Your task to perform on an android device: Open Reddit.com Image 0: 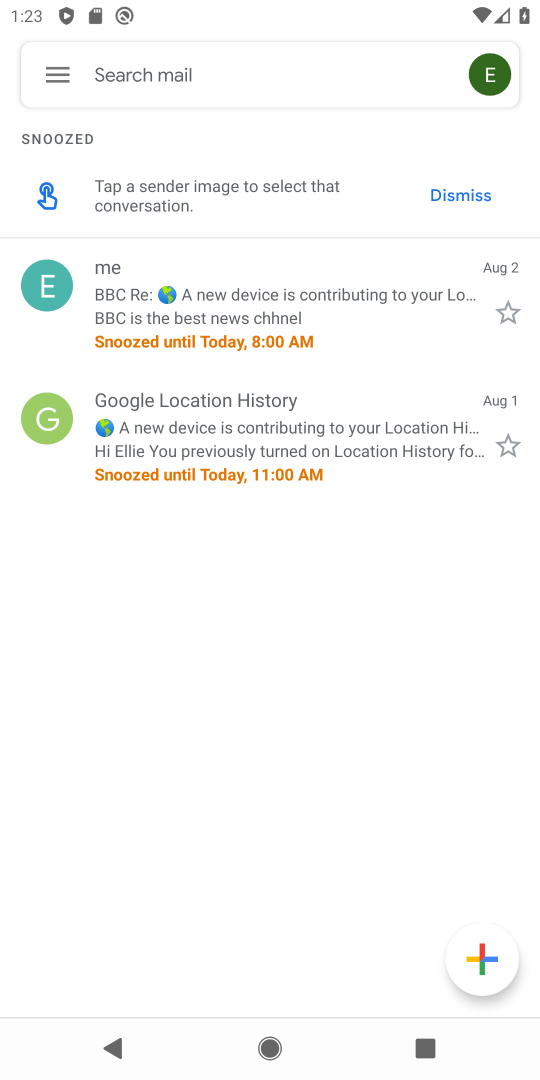
Step 0: press home button
Your task to perform on an android device: Open Reddit.com Image 1: 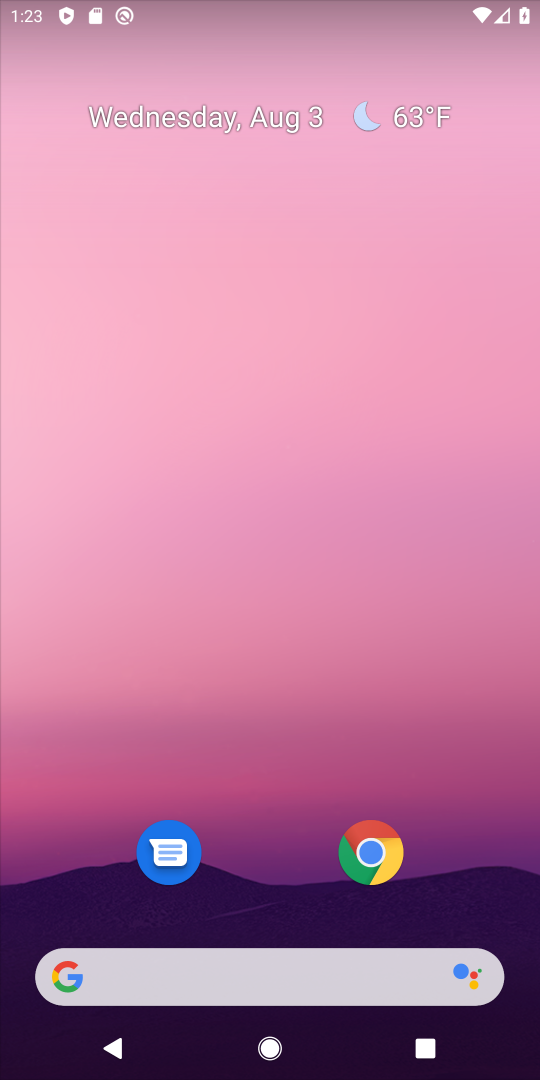
Step 1: click (371, 862)
Your task to perform on an android device: Open Reddit.com Image 2: 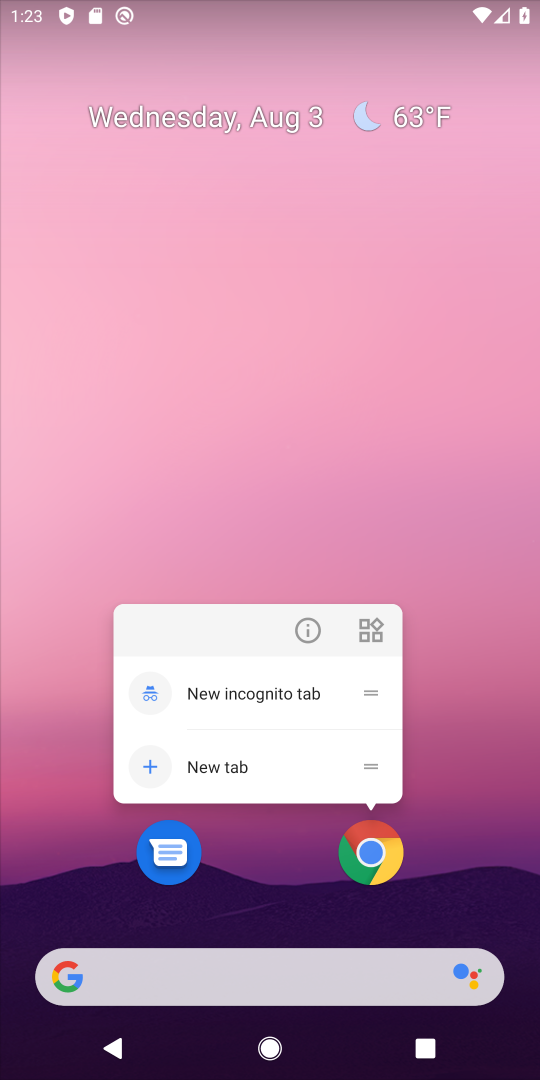
Step 2: click (371, 858)
Your task to perform on an android device: Open Reddit.com Image 3: 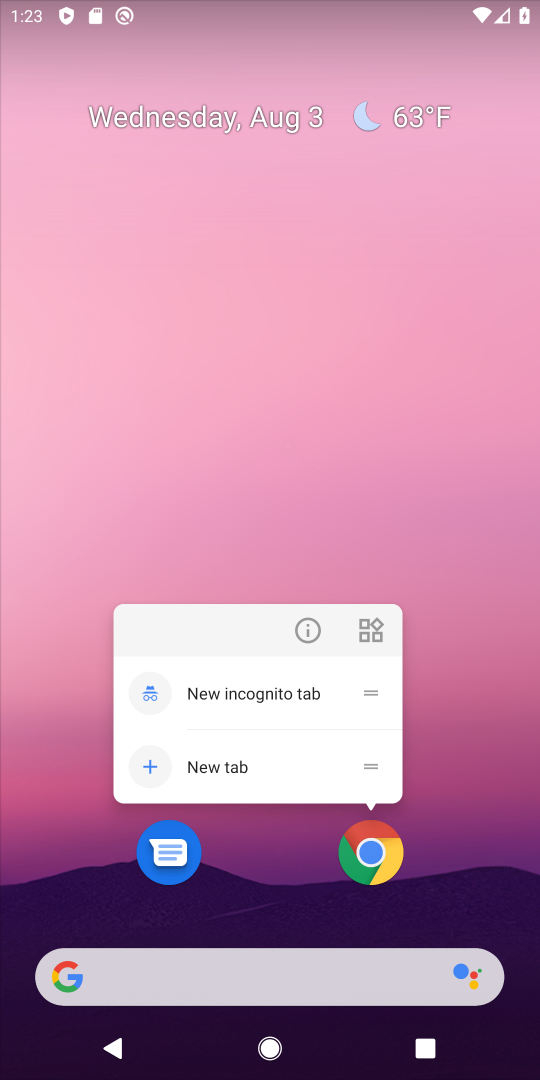
Step 3: click (371, 858)
Your task to perform on an android device: Open Reddit.com Image 4: 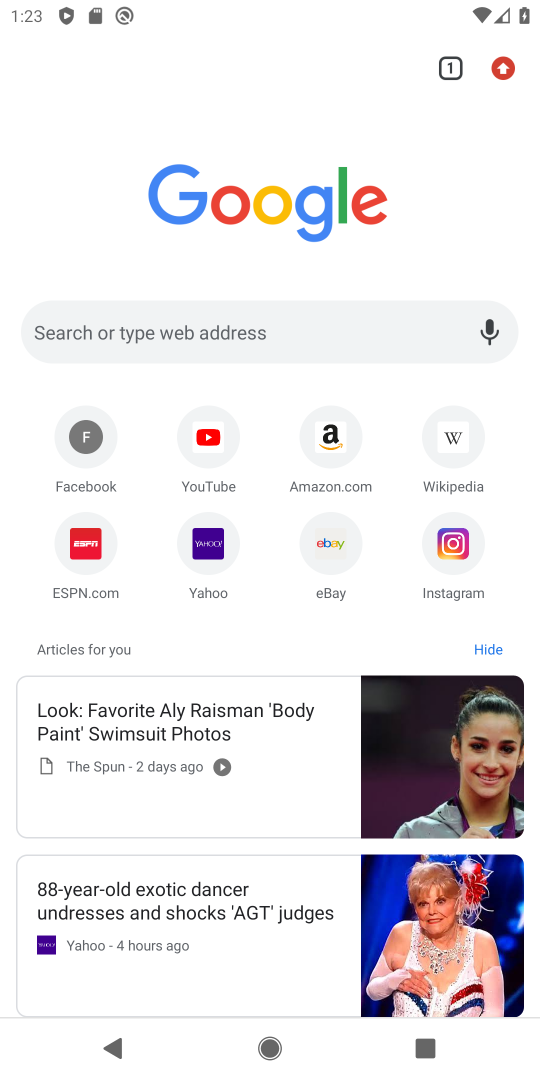
Step 4: click (199, 321)
Your task to perform on an android device: Open Reddit.com Image 5: 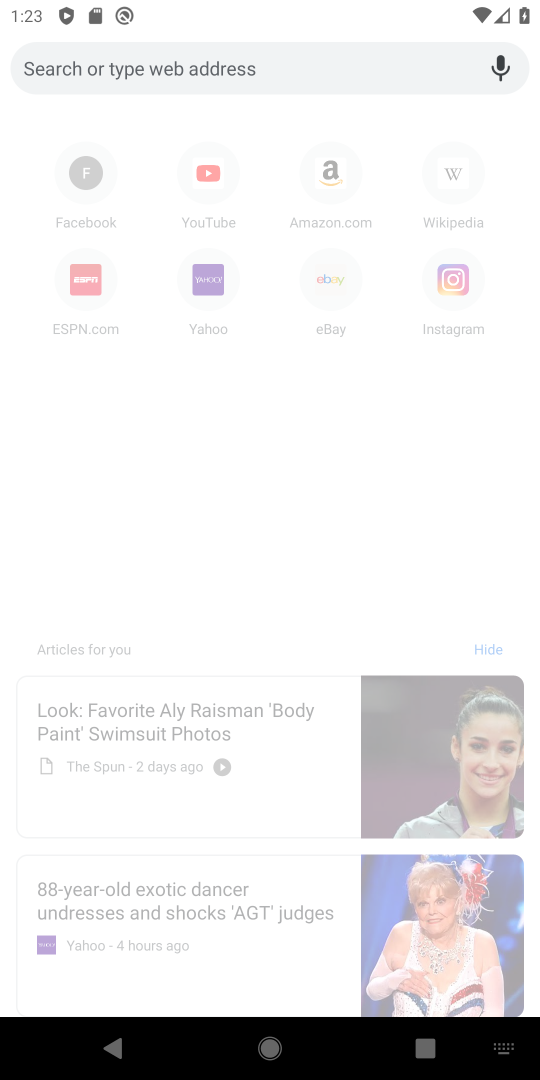
Step 5: type "reddit.com"
Your task to perform on an android device: Open Reddit.com Image 6: 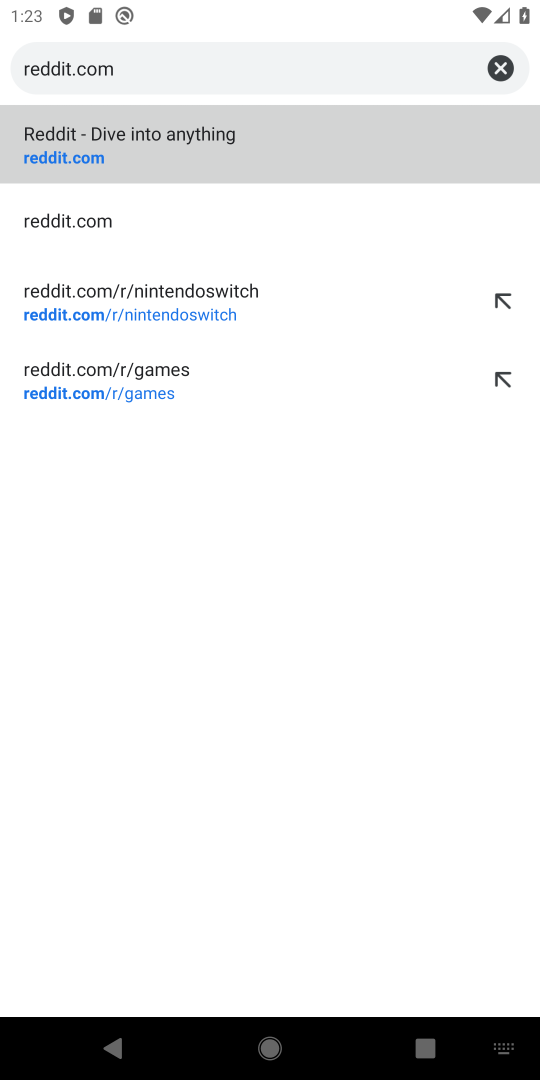
Step 6: click (126, 145)
Your task to perform on an android device: Open Reddit.com Image 7: 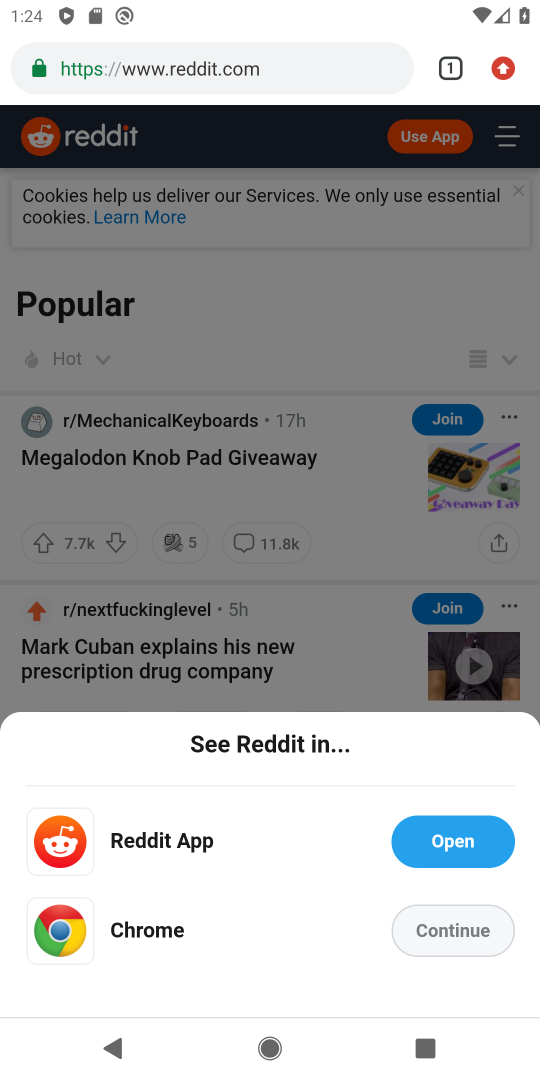
Step 7: task complete